Your task to perform on an android device: Show me productivity apps on the Play Store Image 0: 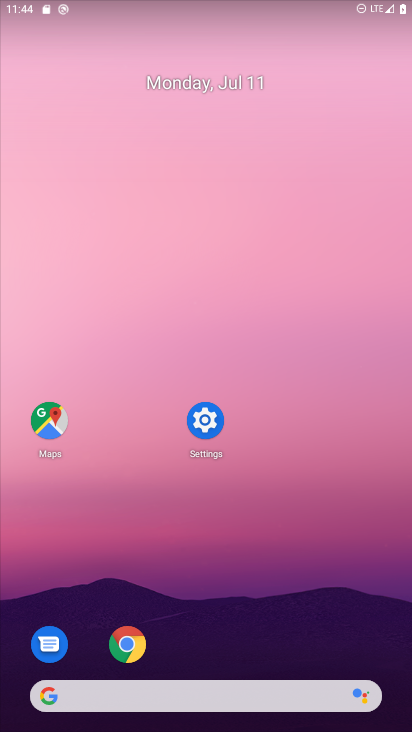
Step 0: drag from (397, 689) to (369, 182)
Your task to perform on an android device: Show me productivity apps on the Play Store Image 1: 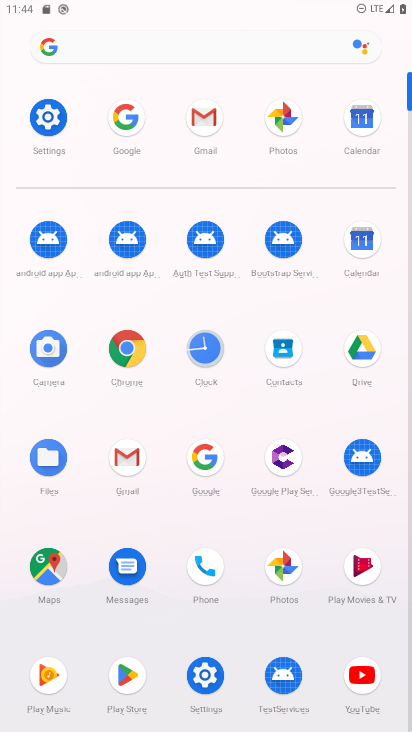
Step 1: click (120, 678)
Your task to perform on an android device: Show me productivity apps on the Play Store Image 2: 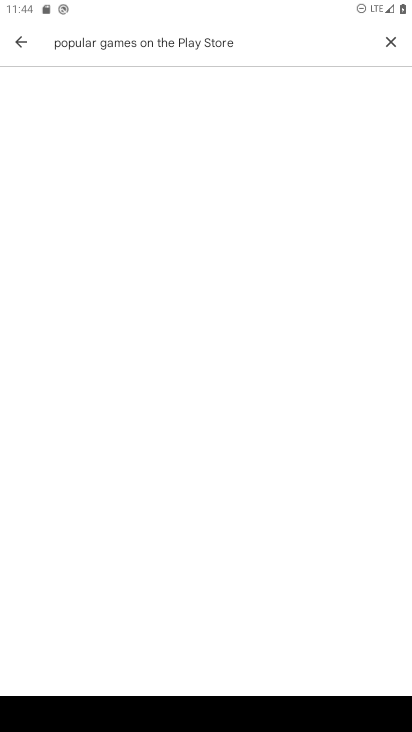
Step 2: click (379, 42)
Your task to perform on an android device: Show me productivity apps on the Play Store Image 3: 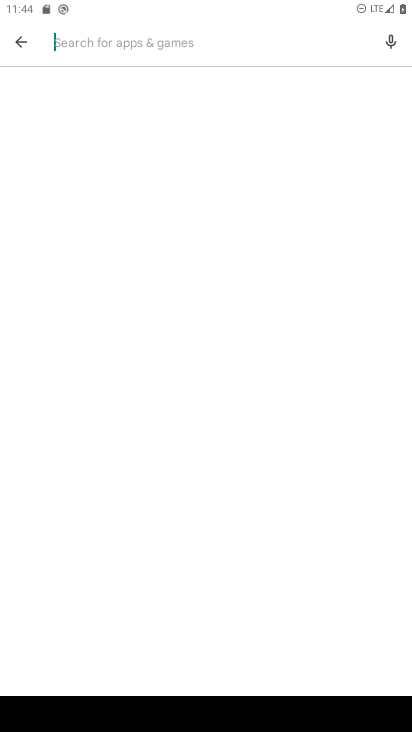
Step 3: type "productivity apps"
Your task to perform on an android device: Show me productivity apps on the Play Store Image 4: 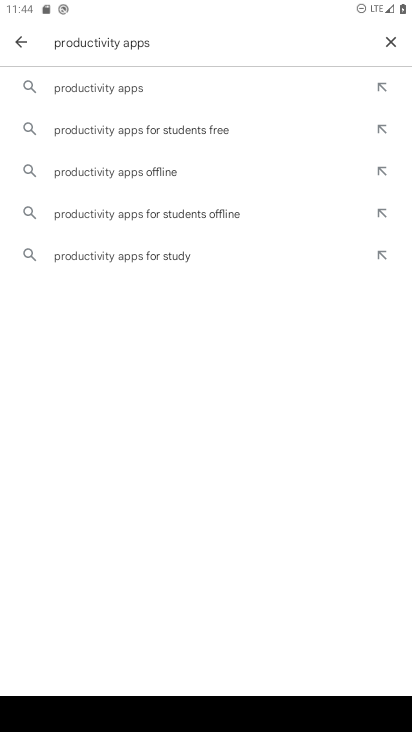
Step 4: click (119, 84)
Your task to perform on an android device: Show me productivity apps on the Play Store Image 5: 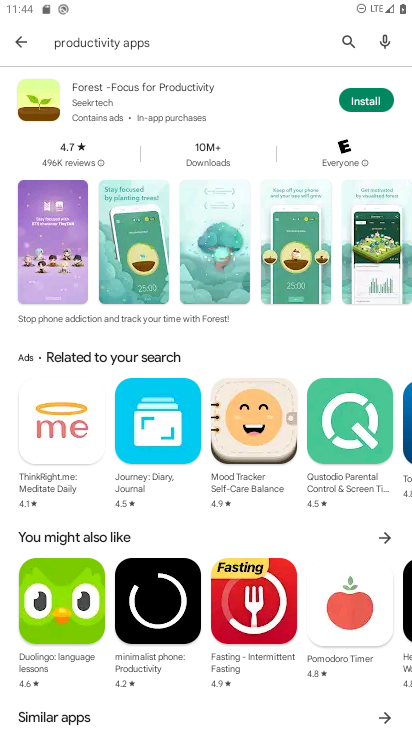
Step 5: task complete